Your task to perform on an android device: Open privacy settings Image 0: 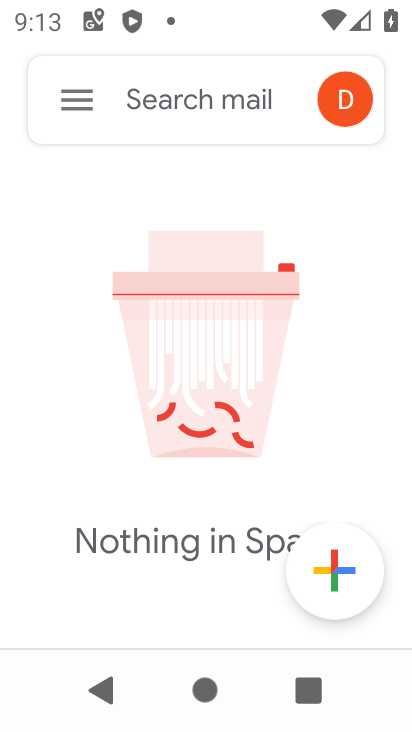
Step 0: press home button
Your task to perform on an android device: Open privacy settings Image 1: 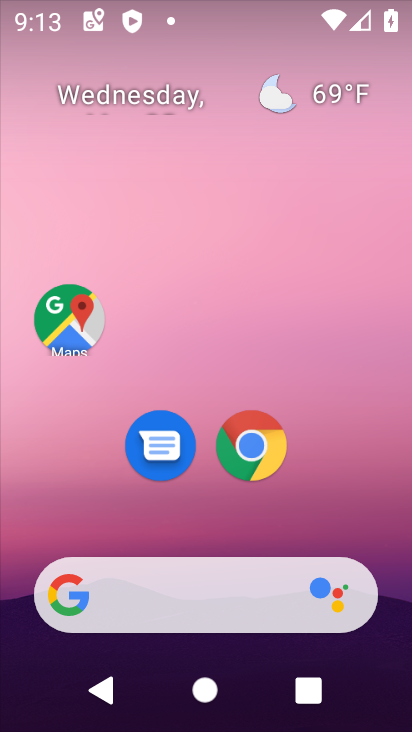
Step 1: drag from (313, 500) to (294, 131)
Your task to perform on an android device: Open privacy settings Image 2: 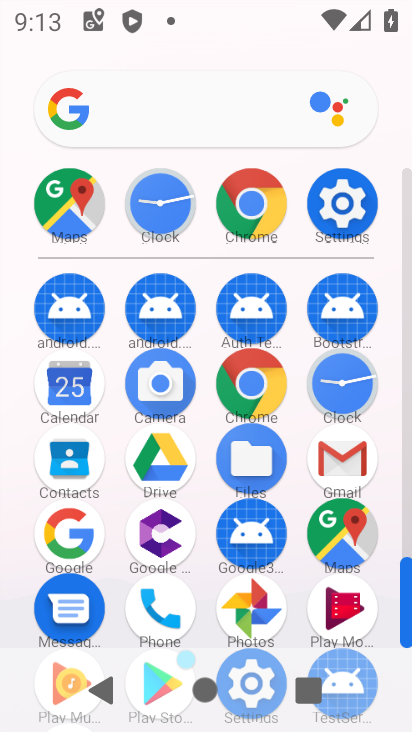
Step 2: click (342, 200)
Your task to perform on an android device: Open privacy settings Image 3: 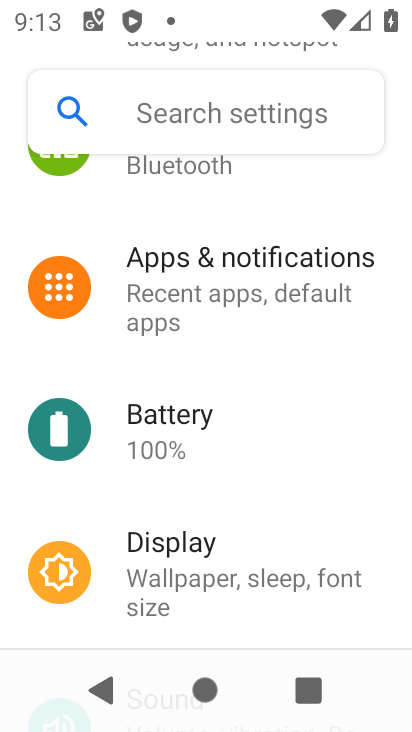
Step 3: drag from (298, 506) to (313, 230)
Your task to perform on an android device: Open privacy settings Image 4: 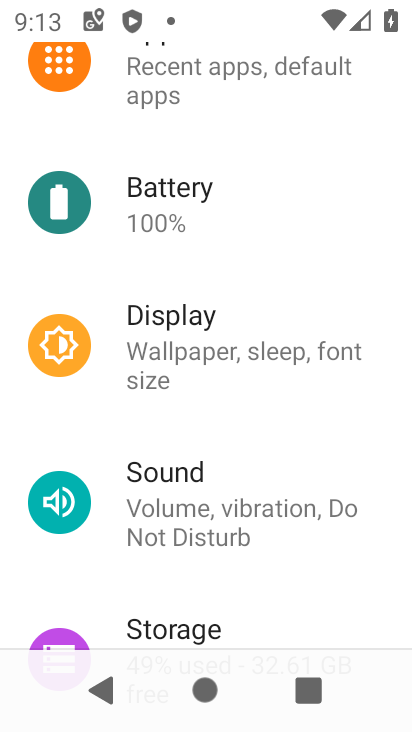
Step 4: drag from (314, 573) to (315, 277)
Your task to perform on an android device: Open privacy settings Image 5: 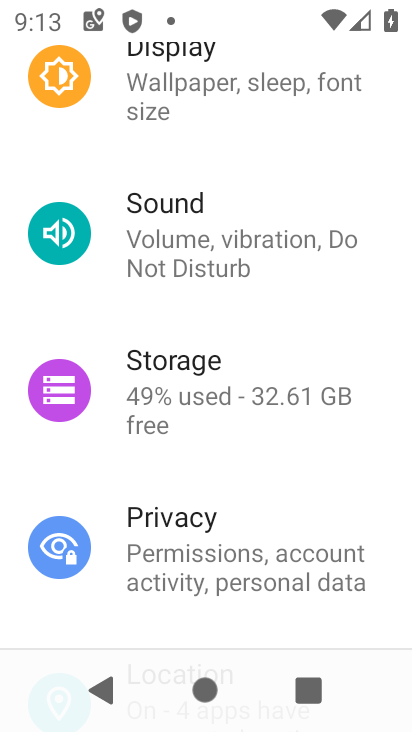
Step 5: click (174, 552)
Your task to perform on an android device: Open privacy settings Image 6: 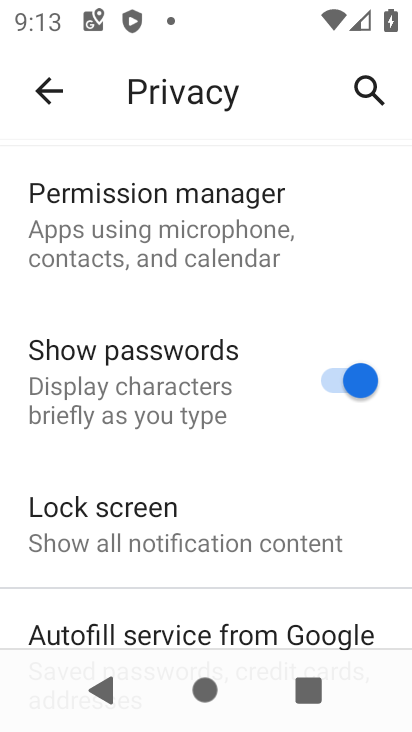
Step 6: task complete